Your task to perform on an android device: open the mobile data screen to see how much data has been used Image 0: 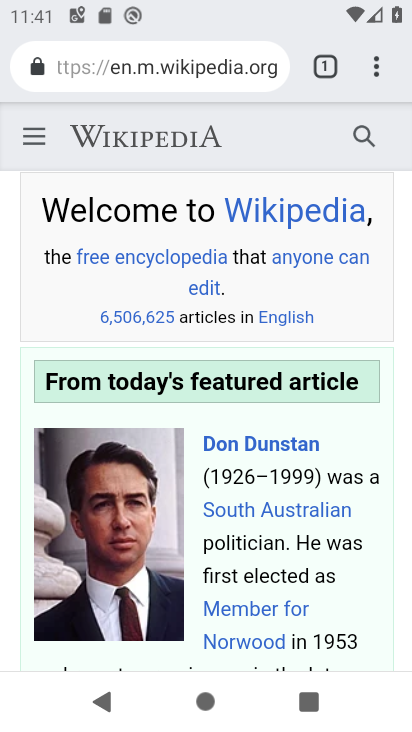
Step 0: press home button
Your task to perform on an android device: open the mobile data screen to see how much data has been used Image 1: 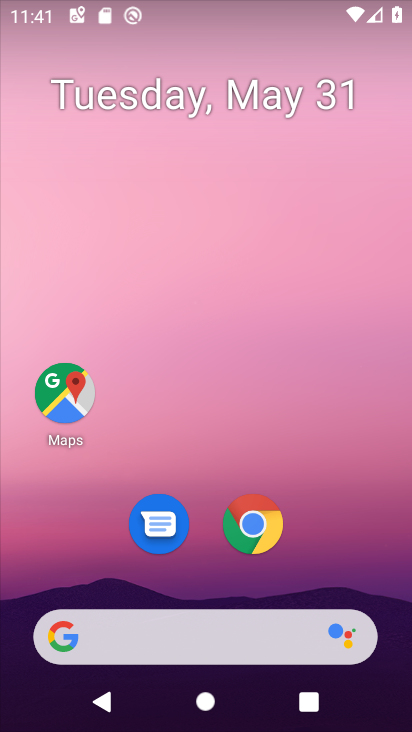
Step 1: drag from (344, 556) to (340, 46)
Your task to perform on an android device: open the mobile data screen to see how much data has been used Image 2: 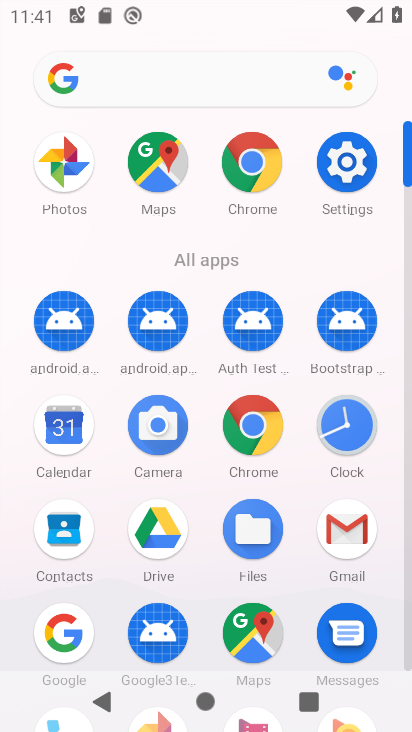
Step 2: click (340, 169)
Your task to perform on an android device: open the mobile data screen to see how much data has been used Image 3: 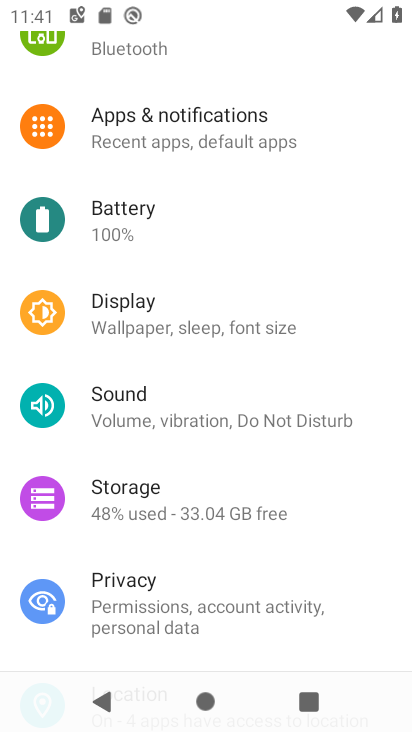
Step 3: drag from (238, 164) to (201, 558)
Your task to perform on an android device: open the mobile data screen to see how much data has been used Image 4: 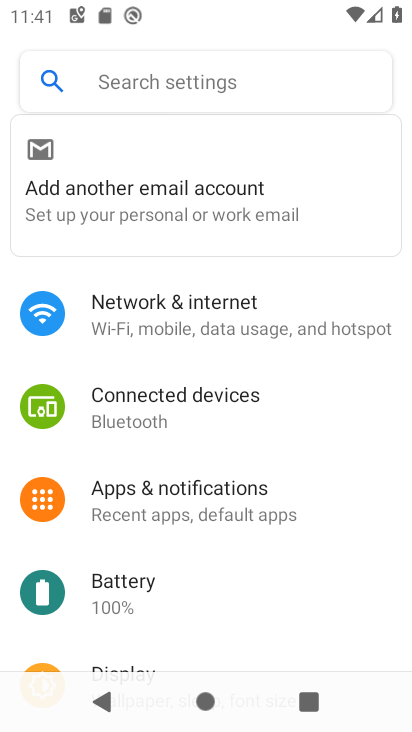
Step 4: click (241, 315)
Your task to perform on an android device: open the mobile data screen to see how much data has been used Image 5: 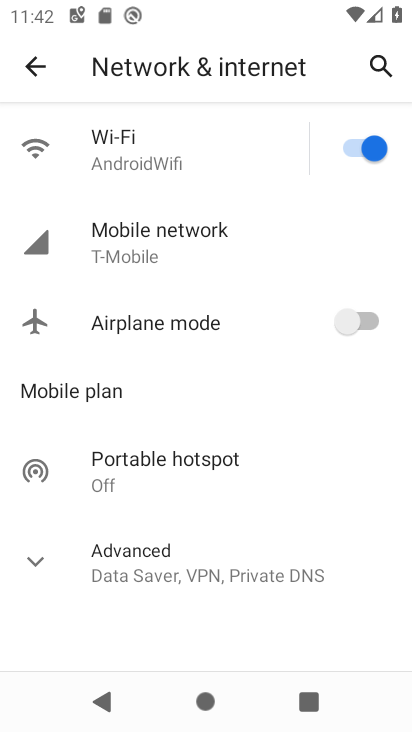
Step 5: click (246, 249)
Your task to perform on an android device: open the mobile data screen to see how much data has been used Image 6: 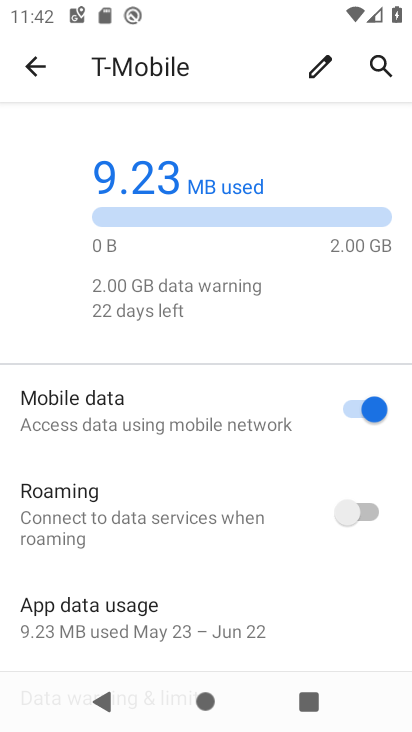
Step 6: task complete